Your task to perform on an android device: Open calendar and show me the second week of next month Image 0: 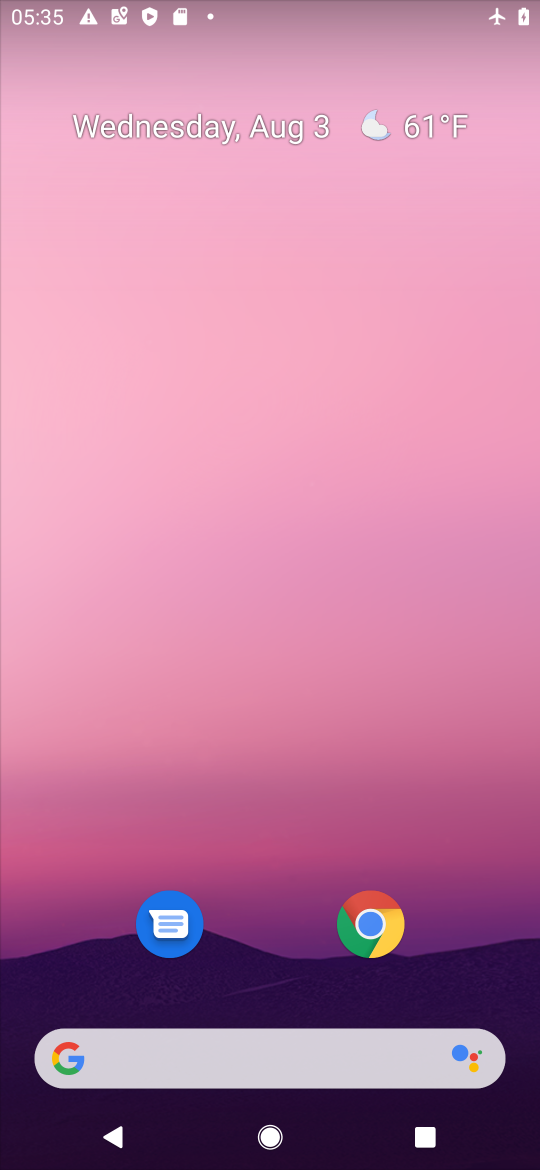
Step 0: drag from (277, 982) to (273, 354)
Your task to perform on an android device: Open calendar and show me the second week of next month Image 1: 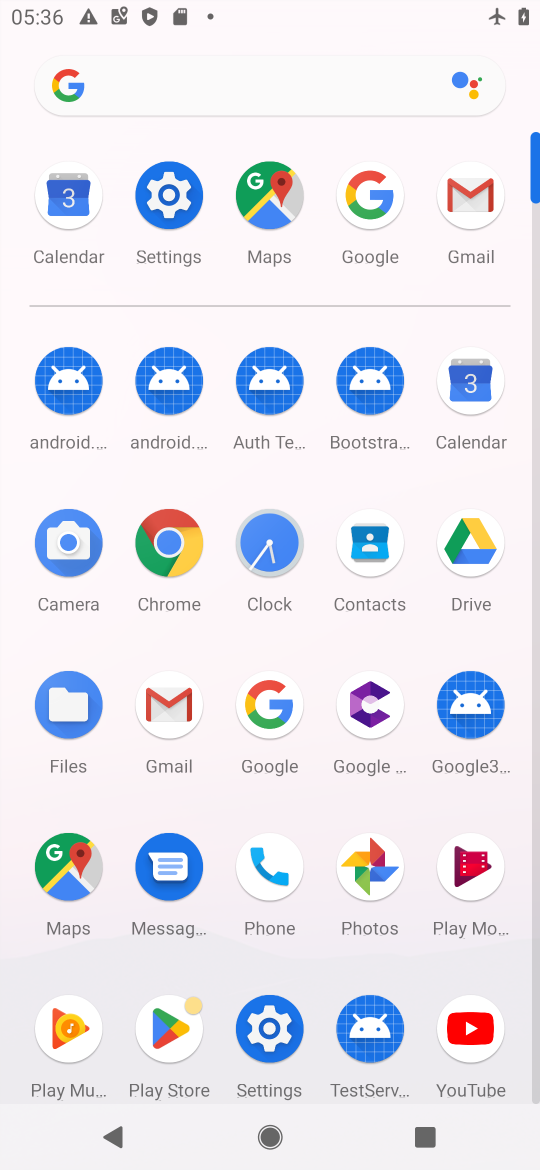
Step 1: click (463, 403)
Your task to perform on an android device: Open calendar and show me the second week of next month Image 2: 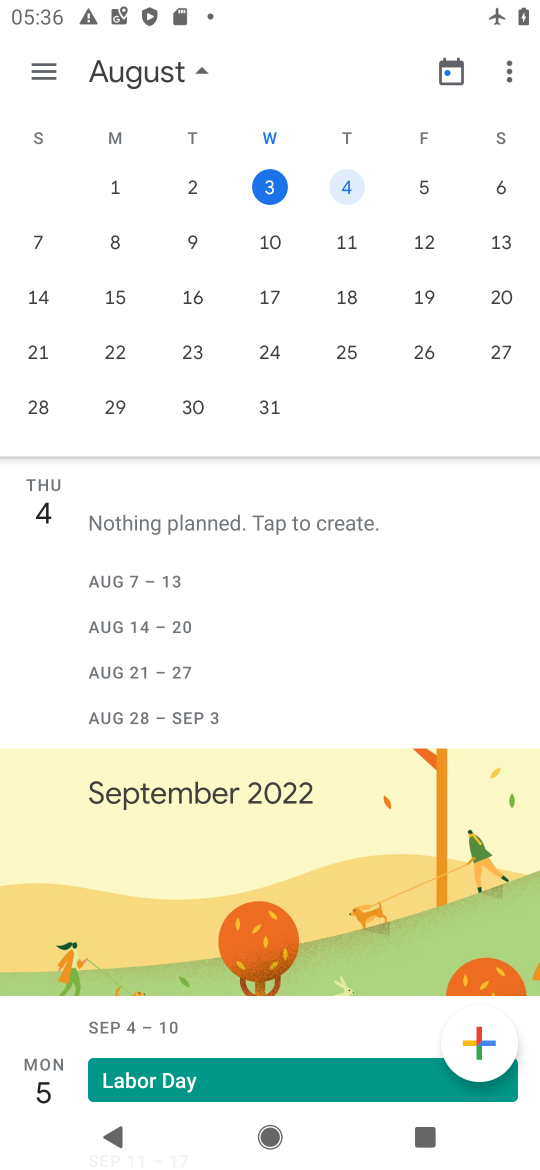
Step 2: drag from (447, 254) to (65, 269)
Your task to perform on an android device: Open calendar and show me the second week of next month Image 3: 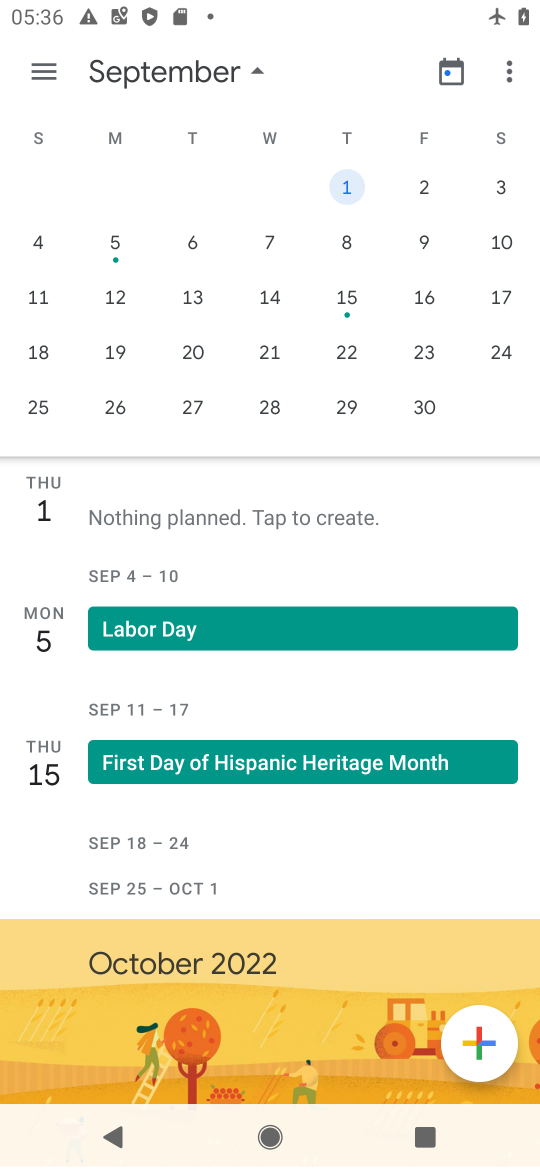
Step 3: click (32, 245)
Your task to perform on an android device: Open calendar and show me the second week of next month Image 4: 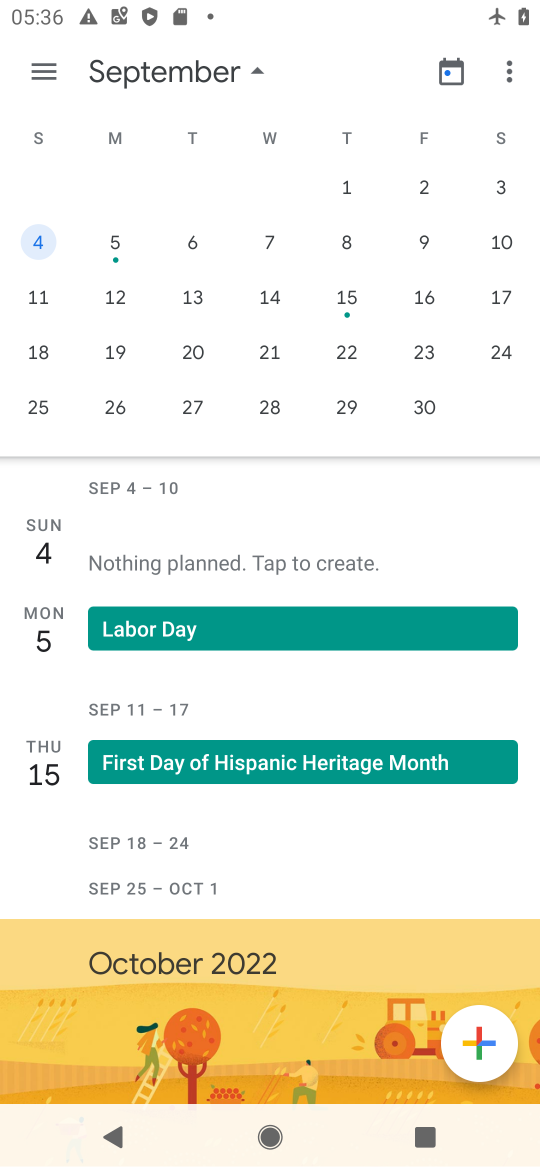
Step 4: task complete